Your task to perform on an android device: star an email in the gmail app Image 0: 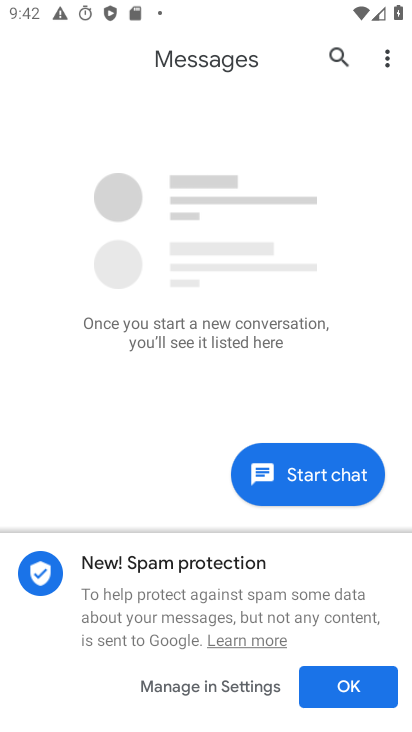
Step 0: press home button
Your task to perform on an android device: star an email in the gmail app Image 1: 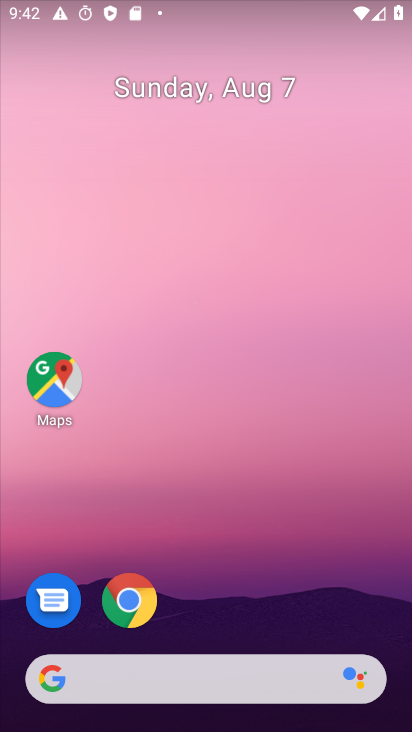
Step 1: drag from (250, 598) to (316, 131)
Your task to perform on an android device: star an email in the gmail app Image 2: 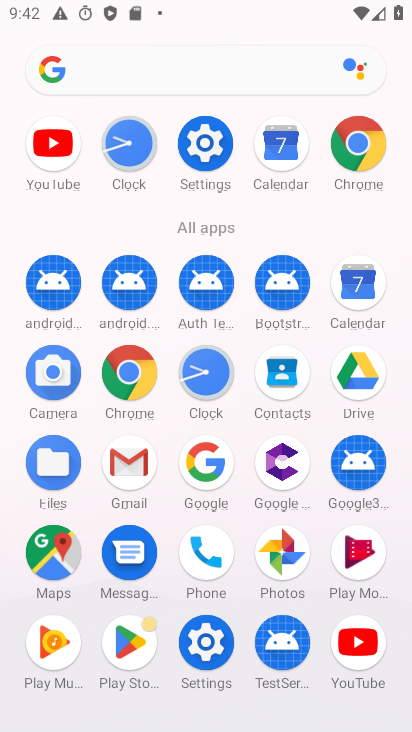
Step 2: click (134, 484)
Your task to perform on an android device: star an email in the gmail app Image 3: 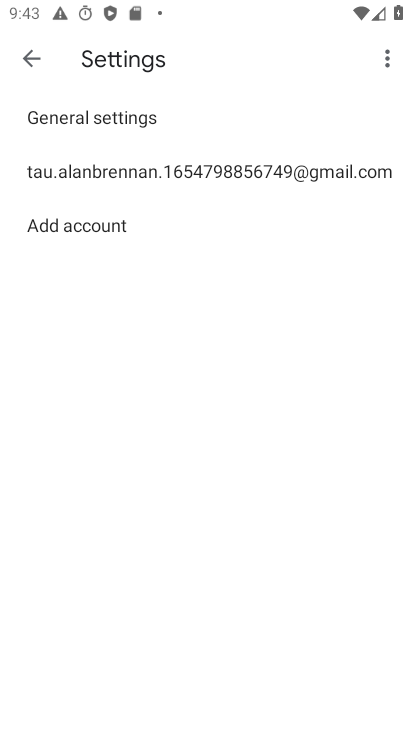
Step 3: click (28, 57)
Your task to perform on an android device: star an email in the gmail app Image 4: 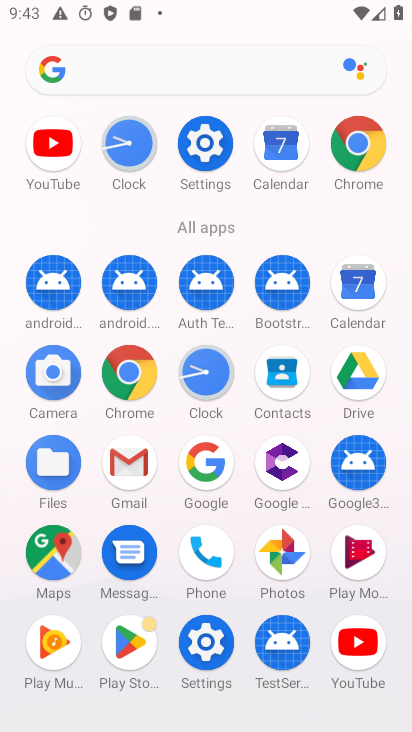
Step 4: click (138, 482)
Your task to perform on an android device: star an email in the gmail app Image 5: 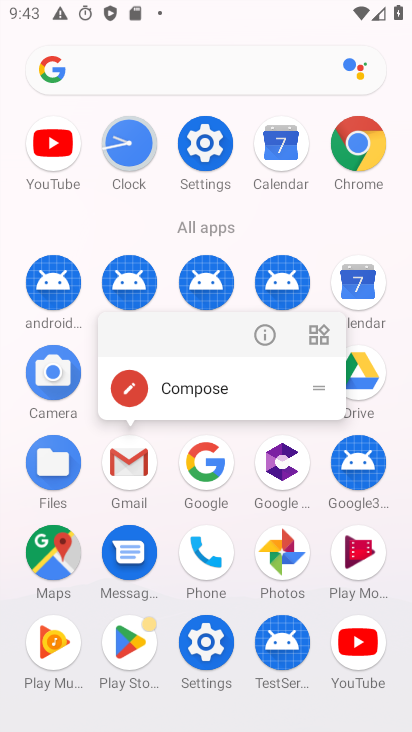
Step 5: click (137, 481)
Your task to perform on an android device: star an email in the gmail app Image 6: 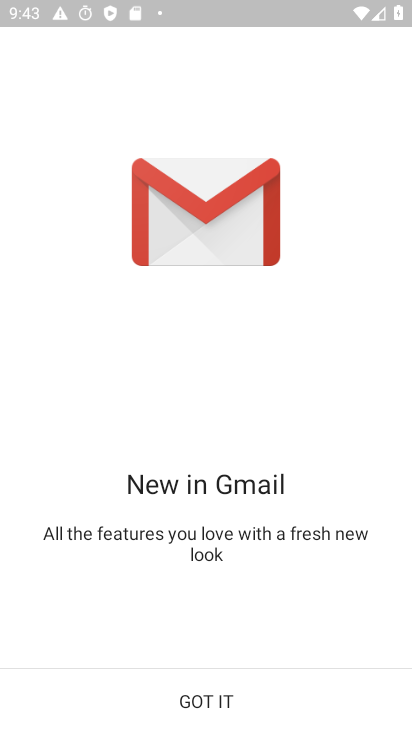
Step 6: click (209, 701)
Your task to perform on an android device: star an email in the gmail app Image 7: 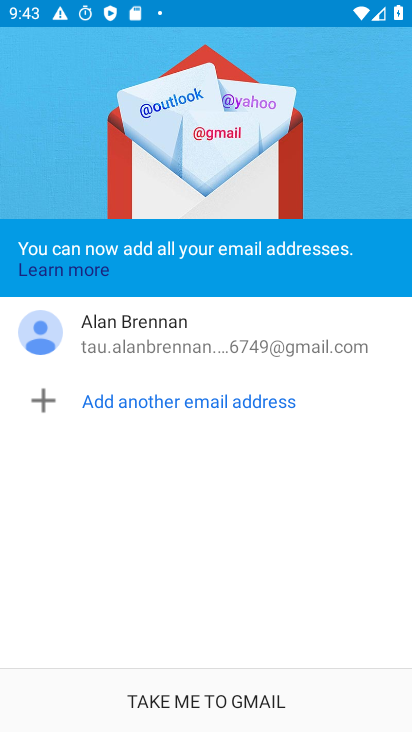
Step 7: click (248, 701)
Your task to perform on an android device: star an email in the gmail app Image 8: 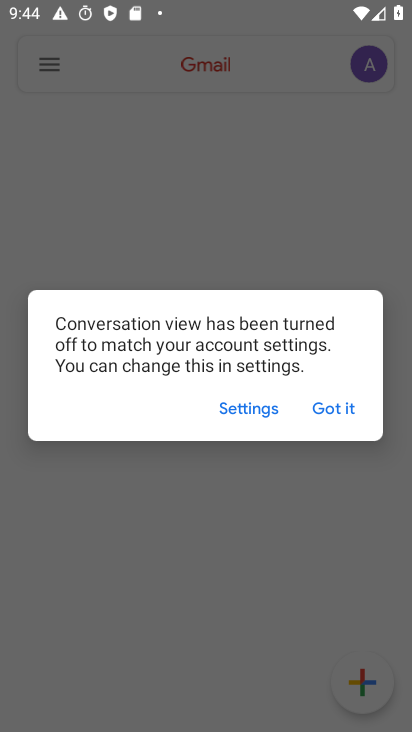
Step 8: click (336, 404)
Your task to perform on an android device: star an email in the gmail app Image 9: 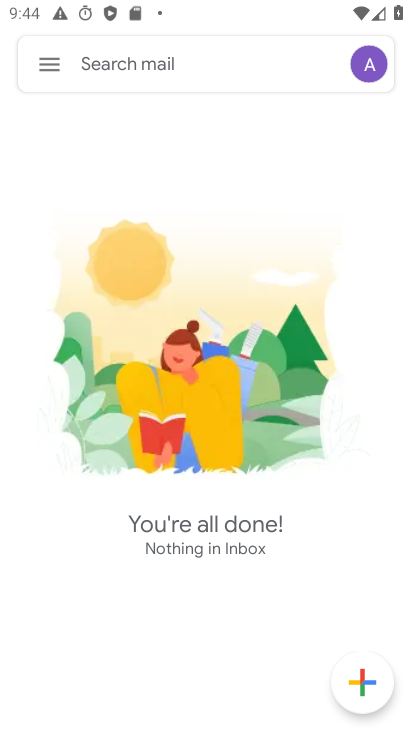
Step 9: click (47, 61)
Your task to perform on an android device: star an email in the gmail app Image 10: 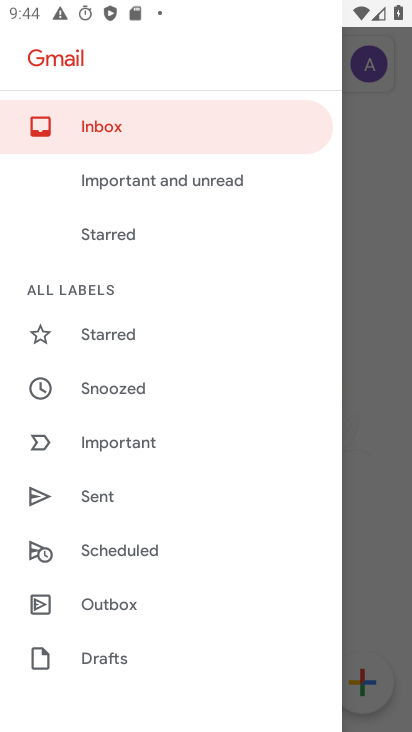
Step 10: click (112, 337)
Your task to perform on an android device: star an email in the gmail app Image 11: 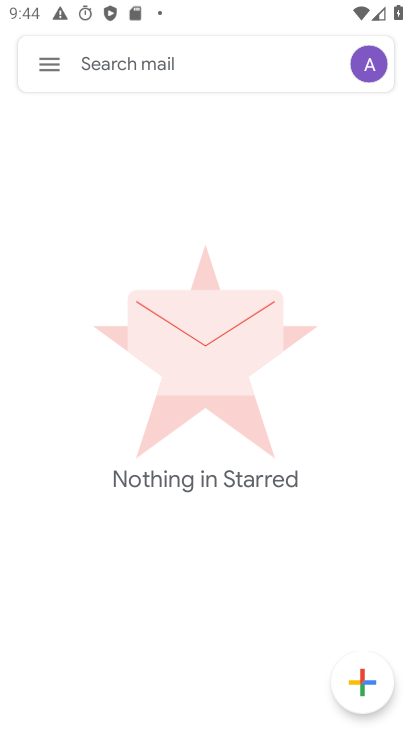
Step 11: task complete